Your task to perform on an android device: turn pop-ups off in chrome Image 0: 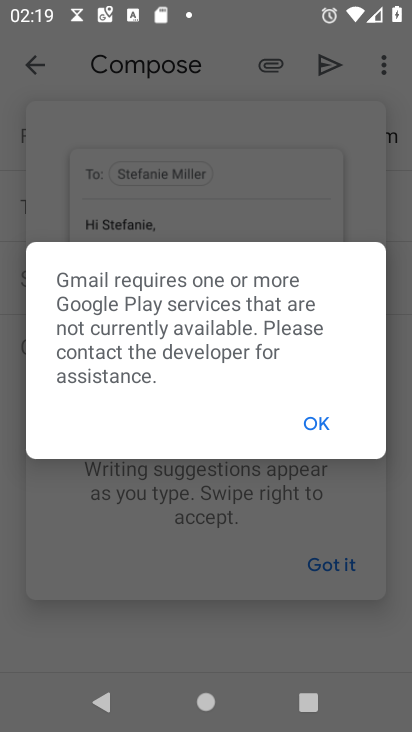
Step 0: press home button
Your task to perform on an android device: turn pop-ups off in chrome Image 1: 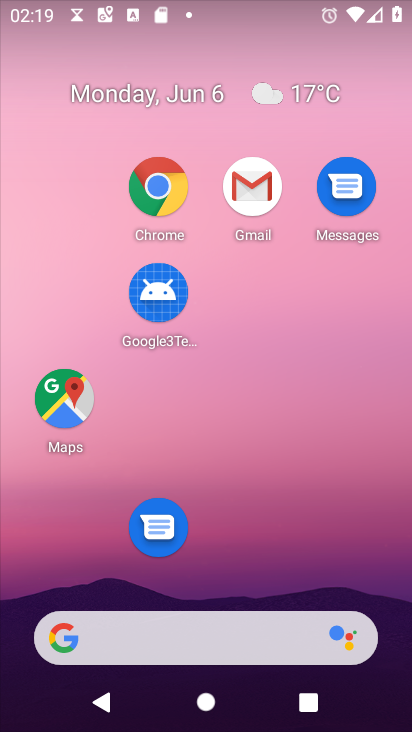
Step 1: click (167, 192)
Your task to perform on an android device: turn pop-ups off in chrome Image 2: 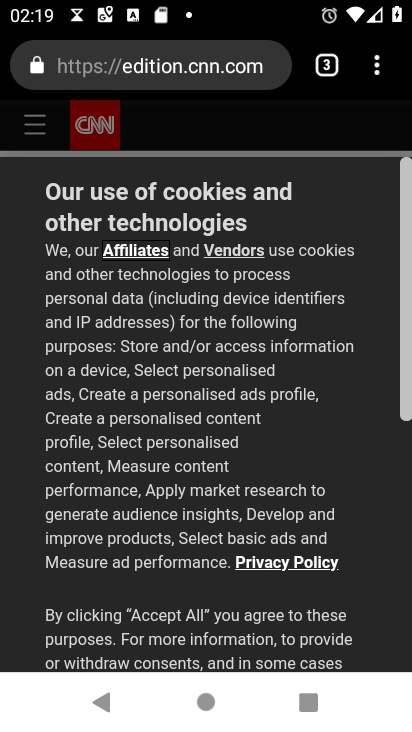
Step 2: click (382, 58)
Your task to perform on an android device: turn pop-ups off in chrome Image 3: 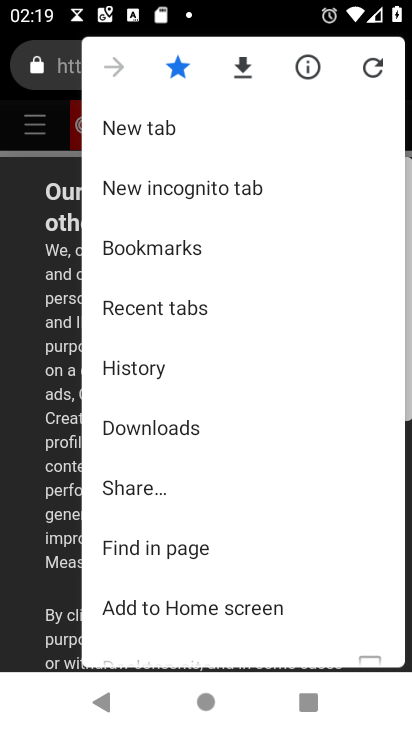
Step 3: drag from (219, 593) to (206, 125)
Your task to perform on an android device: turn pop-ups off in chrome Image 4: 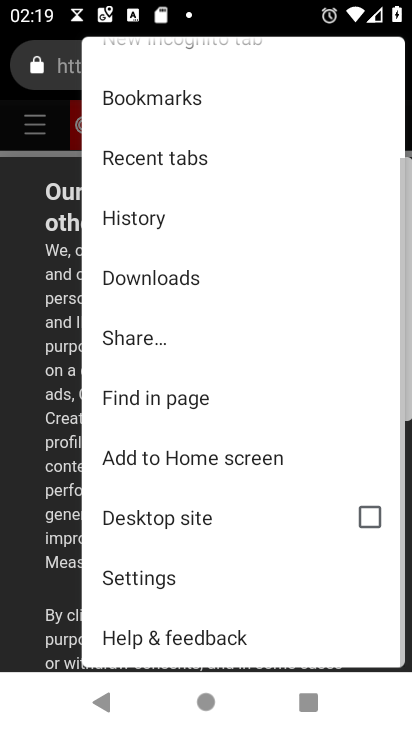
Step 4: click (144, 574)
Your task to perform on an android device: turn pop-ups off in chrome Image 5: 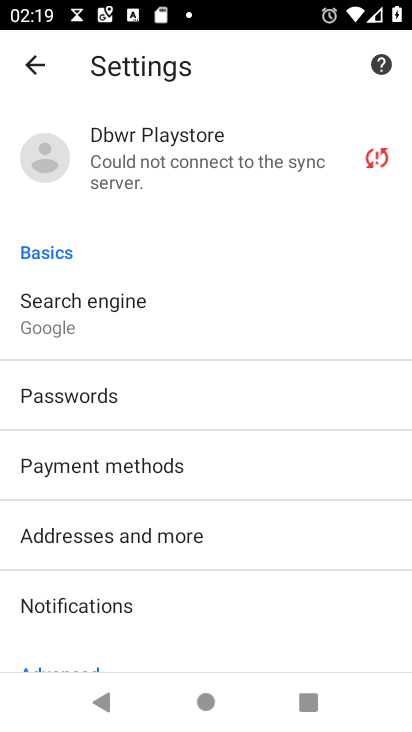
Step 5: drag from (198, 568) to (150, 134)
Your task to perform on an android device: turn pop-ups off in chrome Image 6: 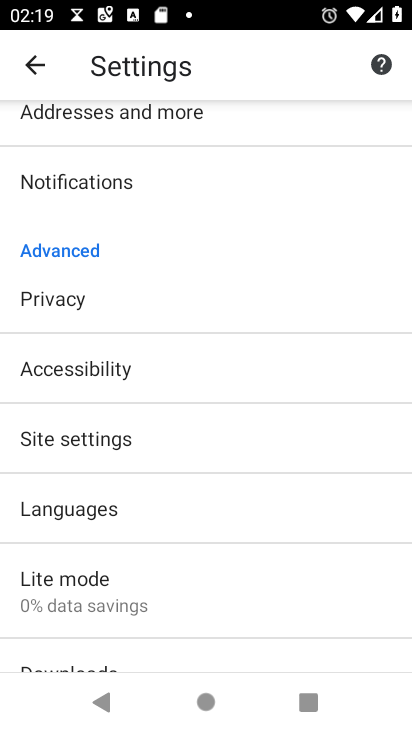
Step 6: click (150, 438)
Your task to perform on an android device: turn pop-ups off in chrome Image 7: 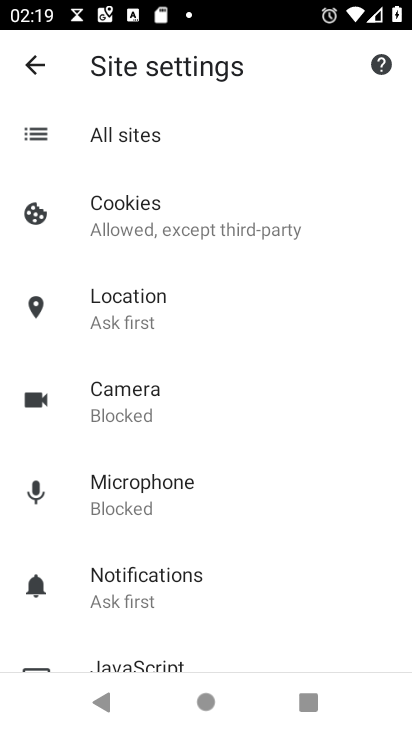
Step 7: drag from (354, 603) to (367, 423)
Your task to perform on an android device: turn pop-ups off in chrome Image 8: 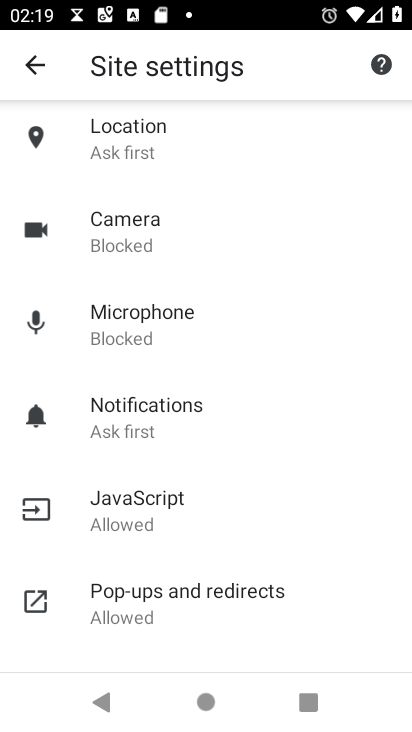
Step 8: click (169, 585)
Your task to perform on an android device: turn pop-ups off in chrome Image 9: 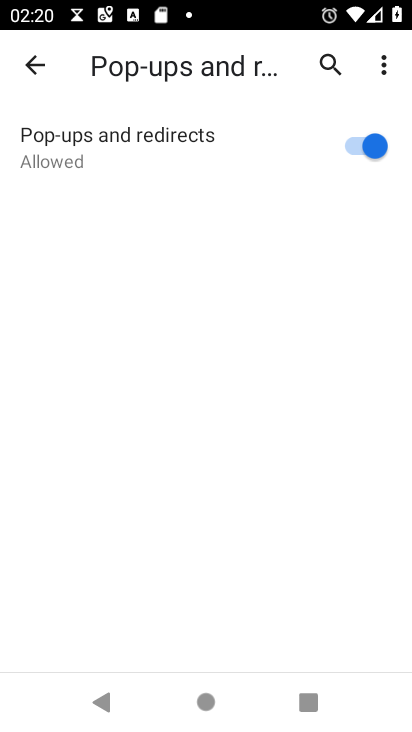
Step 9: click (383, 146)
Your task to perform on an android device: turn pop-ups off in chrome Image 10: 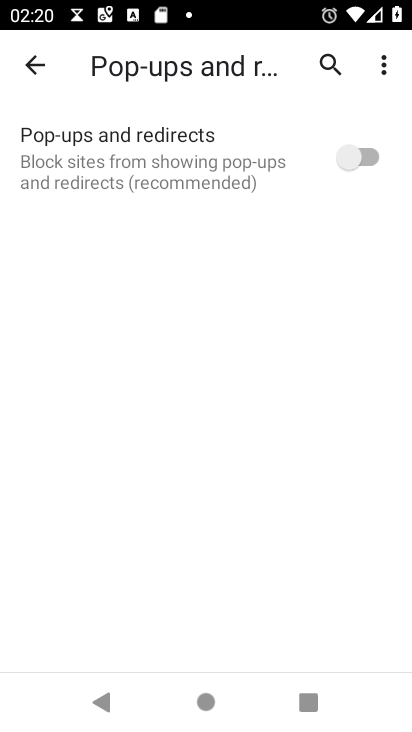
Step 10: task complete